Your task to perform on an android device: set the timer Image 0: 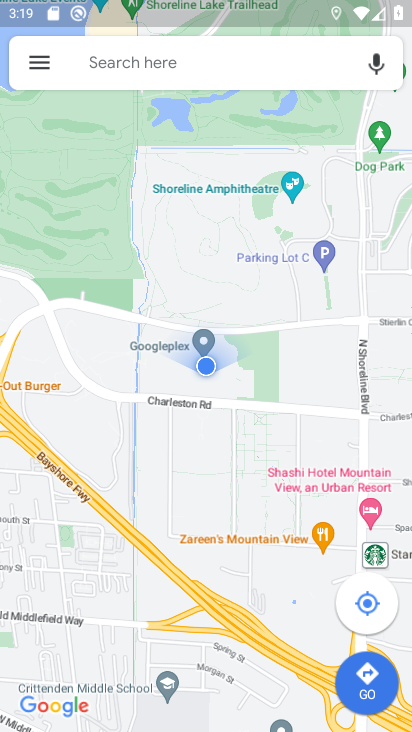
Step 0: press home button
Your task to perform on an android device: set the timer Image 1: 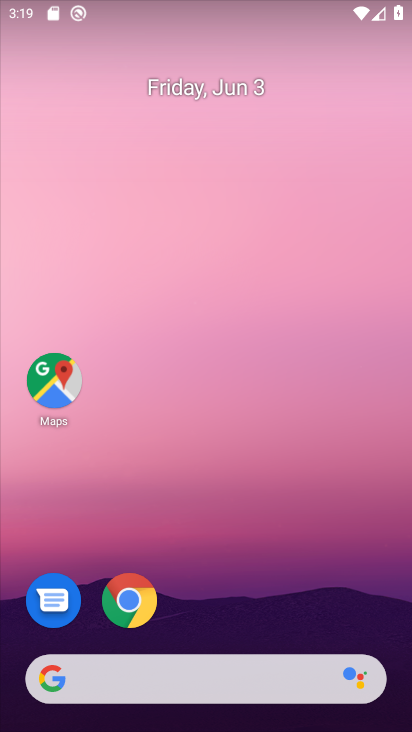
Step 1: drag from (280, 582) to (244, 193)
Your task to perform on an android device: set the timer Image 2: 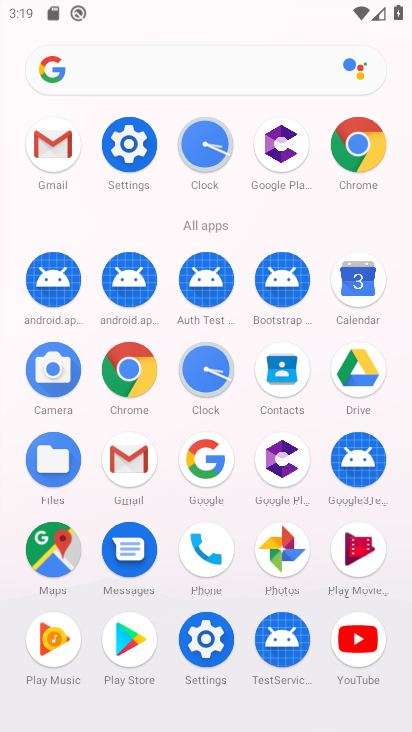
Step 2: click (199, 367)
Your task to perform on an android device: set the timer Image 3: 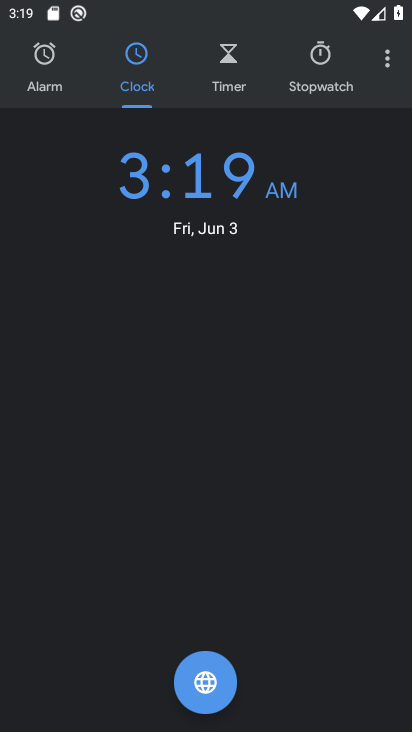
Step 3: click (209, 69)
Your task to perform on an android device: set the timer Image 4: 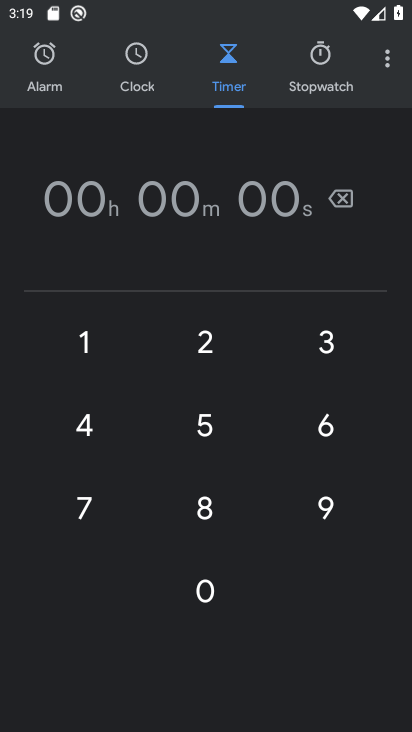
Step 4: click (193, 427)
Your task to perform on an android device: set the timer Image 5: 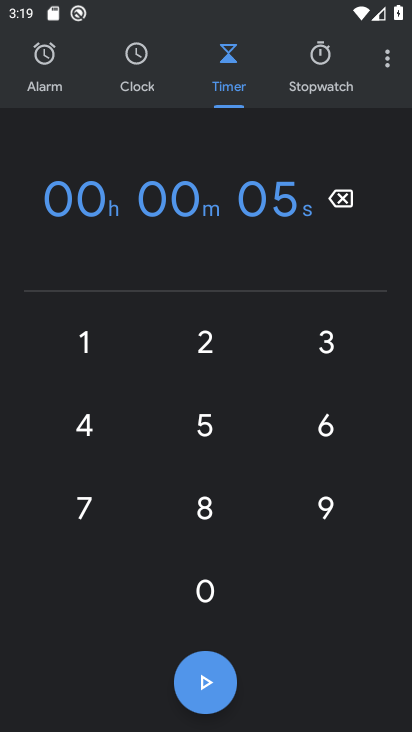
Step 5: task complete